Your task to perform on an android device: toggle airplane mode Image 0: 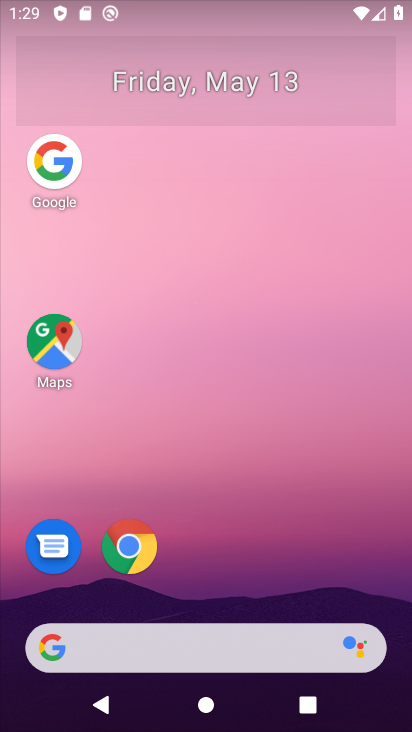
Step 0: drag from (268, 402) to (294, 126)
Your task to perform on an android device: toggle airplane mode Image 1: 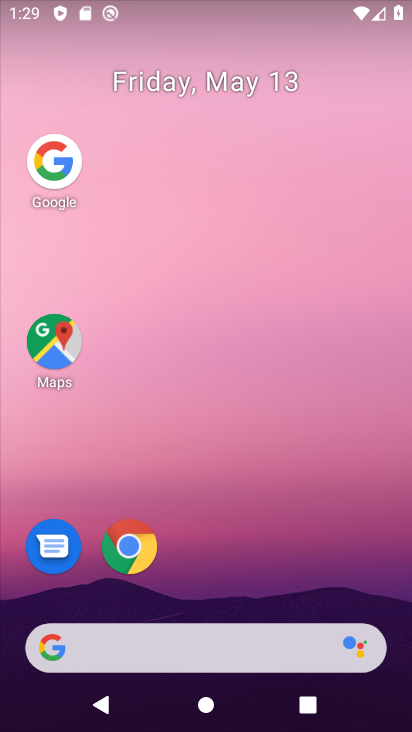
Step 1: drag from (233, 598) to (280, 75)
Your task to perform on an android device: toggle airplane mode Image 2: 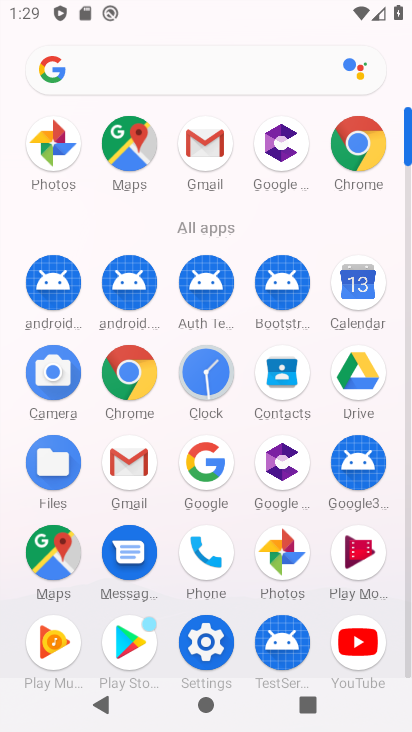
Step 2: drag from (223, 648) to (92, 262)
Your task to perform on an android device: toggle airplane mode Image 3: 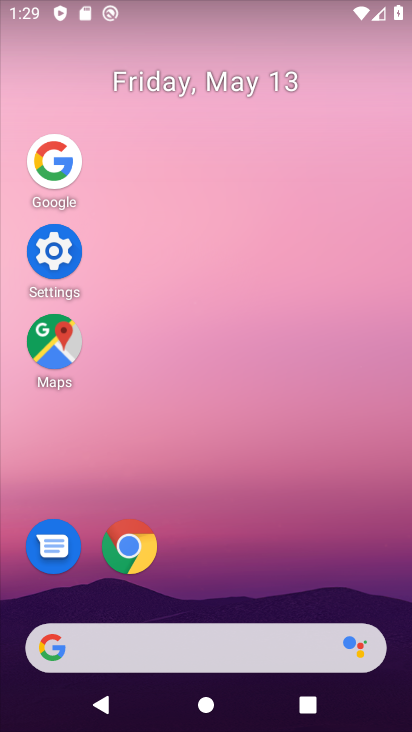
Step 3: click (62, 251)
Your task to perform on an android device: toggle airplane mode Image 4: 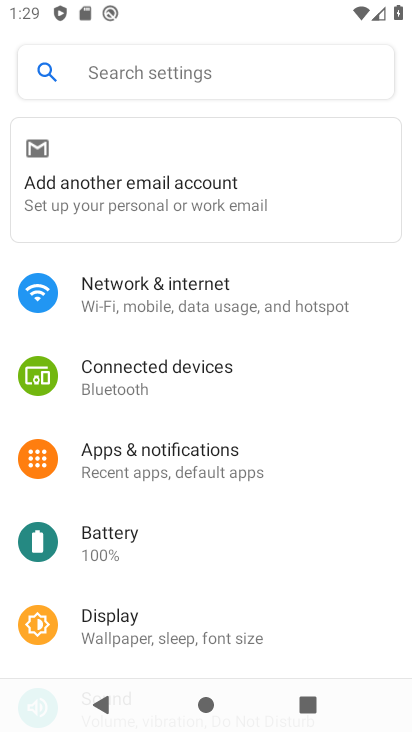
Step 4: click (205, 284)
Your task to perform on an android device: toggle airplane mode Image 5: 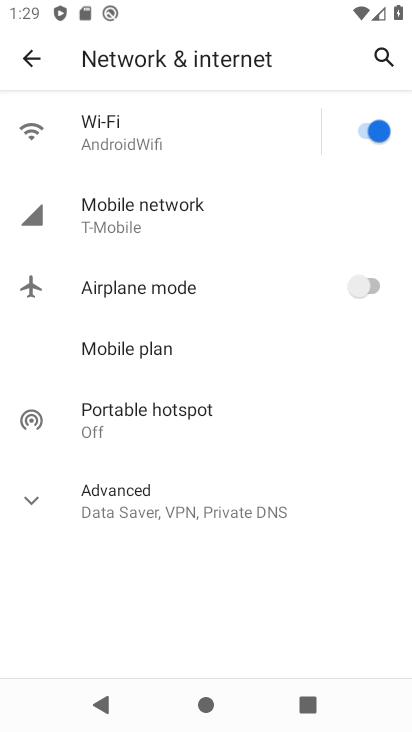
Step 5: click (368, 280)
Your task to perform on an android device: toggle airplane mode Image 6: 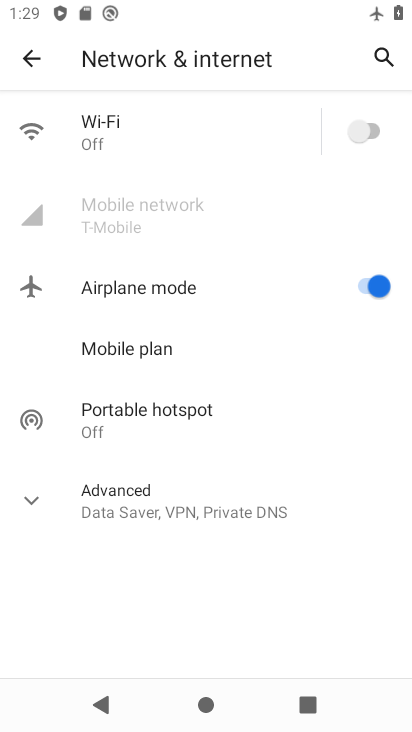
Step 6: task complete